Your task to perform on an android device: Open Reddit.com Image 0: 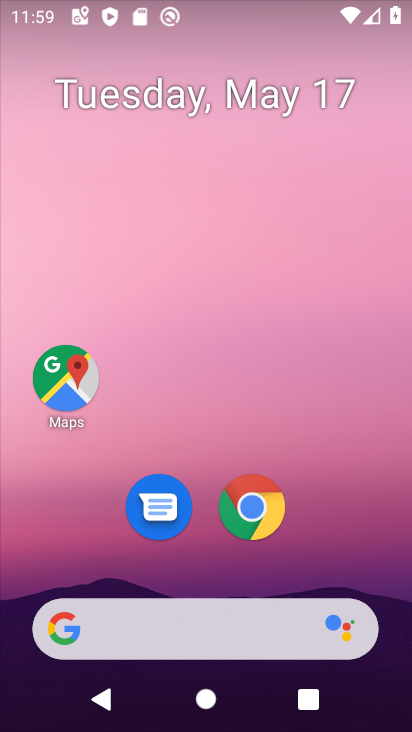
Step 0: click (259, 510)
Your task to perform on an android device: Open Reddit.com Image 1: 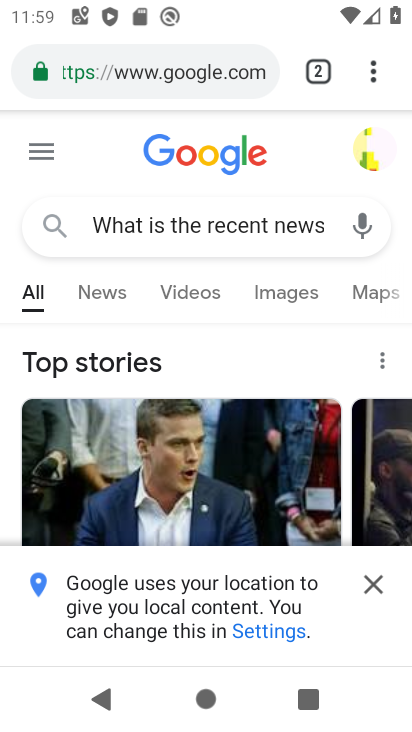
Step 1: click (356, 67)
Your task to perform on an android device: Open Reddit.com Image 2: 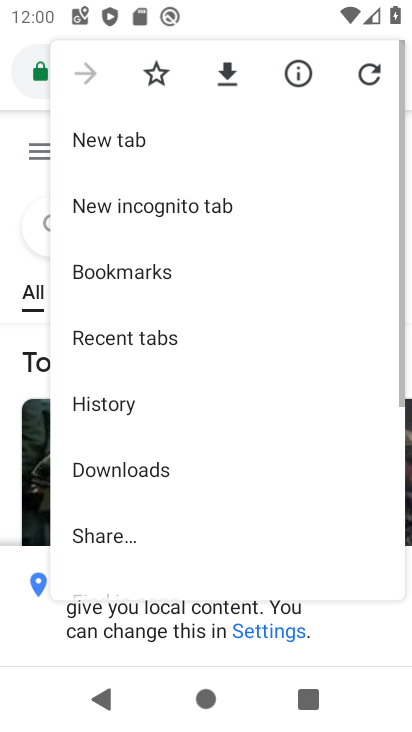
Step 2: click (133, 132)
Your task to perform on an android device: Open Reddit.com Image 3: 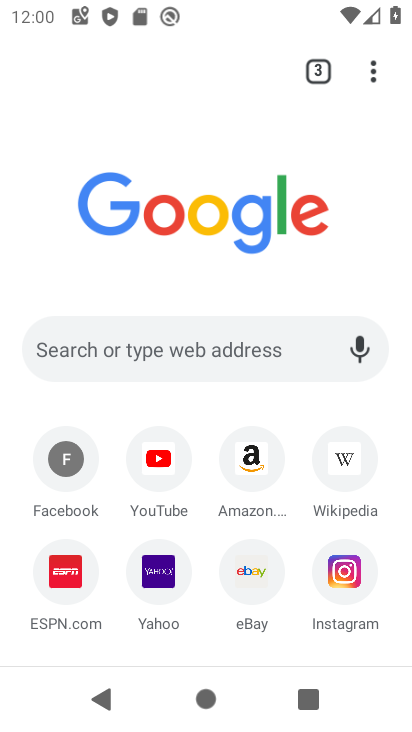
Step 3: click (193, 339)
Your task to perform on an android device: Open Reddit.com Image 4: 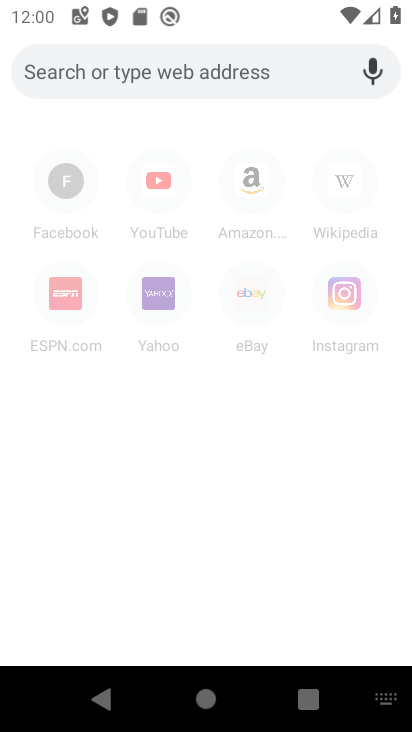
Step 4: type "Reddit.com"
Your task to perform on an android device: Open Reddit.com Image 5: 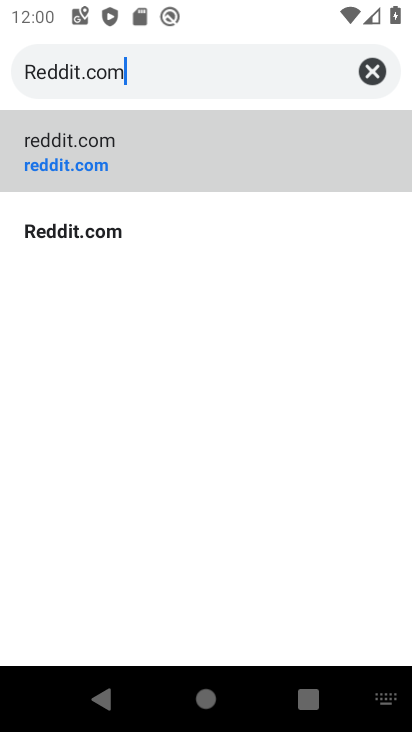
Step 5: click (180, 149)
Your task to perform on an android device: Open Reddit.com Image 6: 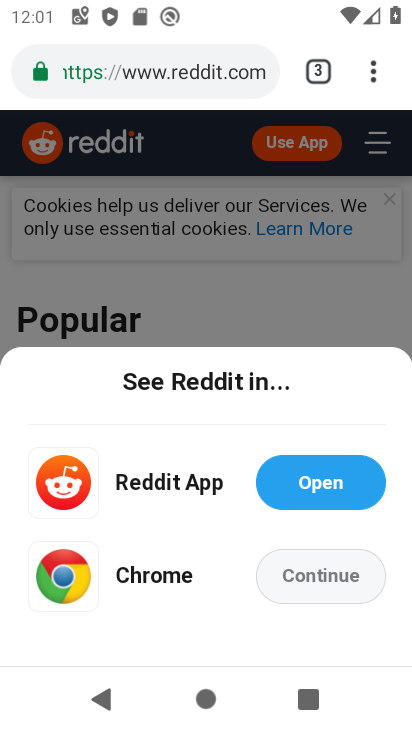
Step 6: task complete